Your task to perform on an android device: Open Yahoo.com Image 0: 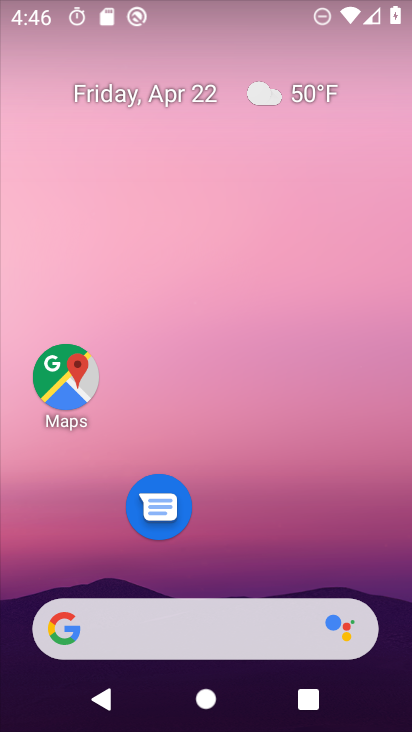
Step 0: drag from (234, 481) to (286, 91)
Your task to perform on an android device: Open Yahoo.com Image 1: 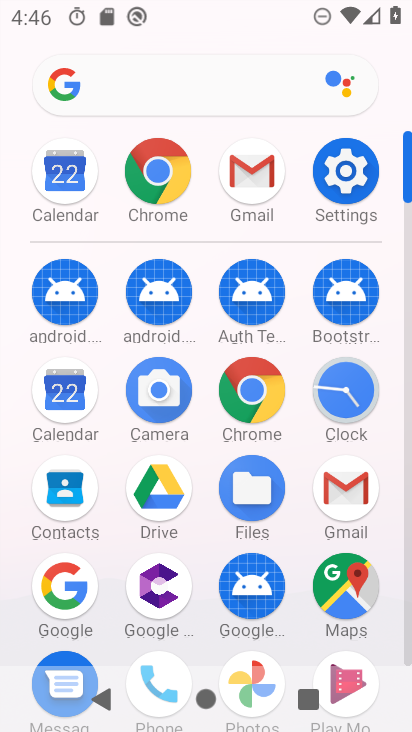
Step 1: click (172, 167)
Your task to perform on an android device: Open Yahoo.com Image 2: 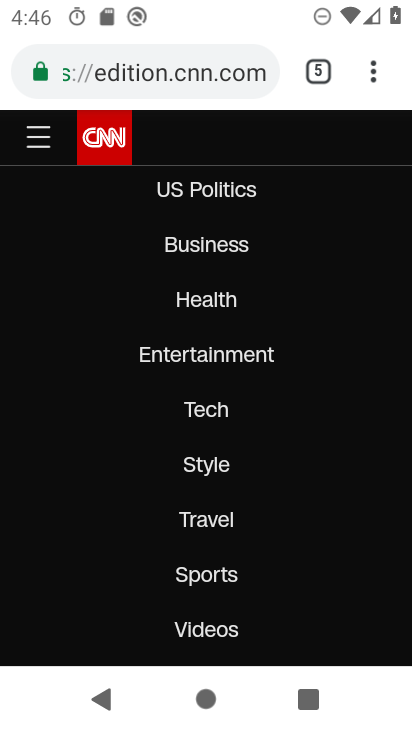
Step 2: drag from (374, 65) to (156, 491)
Your task to perform on an android device: Open Yahoo.com Image 3: 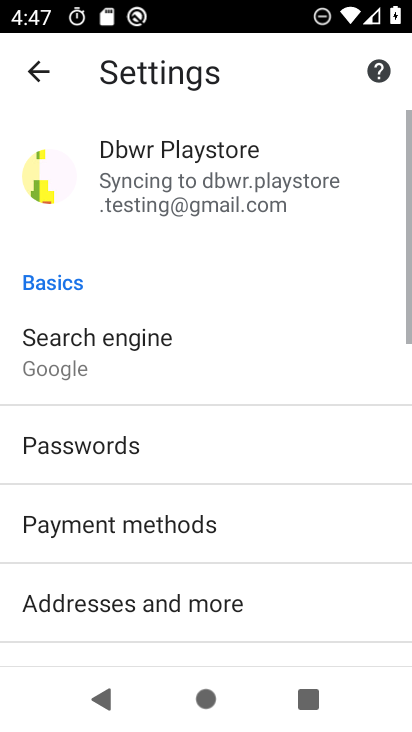
Step 3: drag from (149, 566) to (248, 175)
Your task to perform on an android device: Open Yahoo.com Image 4: 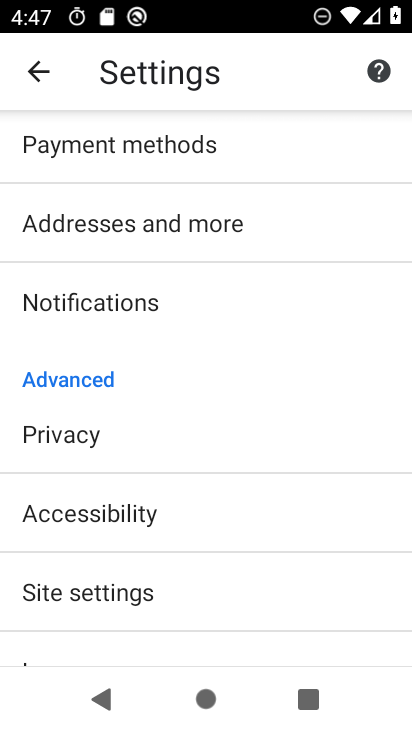
Step 4: click (30, 66)
Your task to perform on an android device: Open Yahoo.com Image 5: 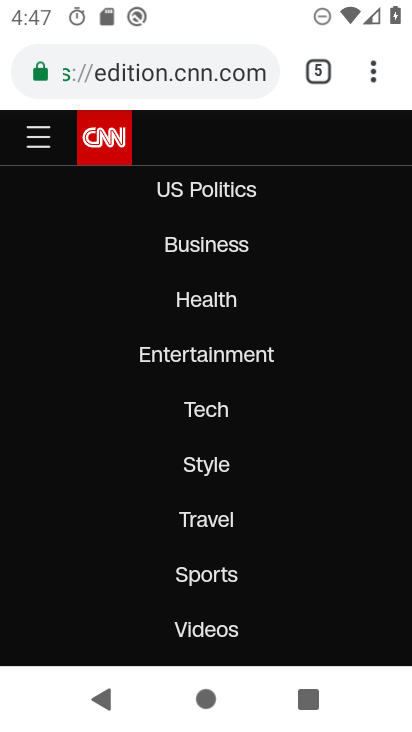
Step 5: click (317, 70)
Your task to perform on an android device: Open Yahoo.com Image 6: 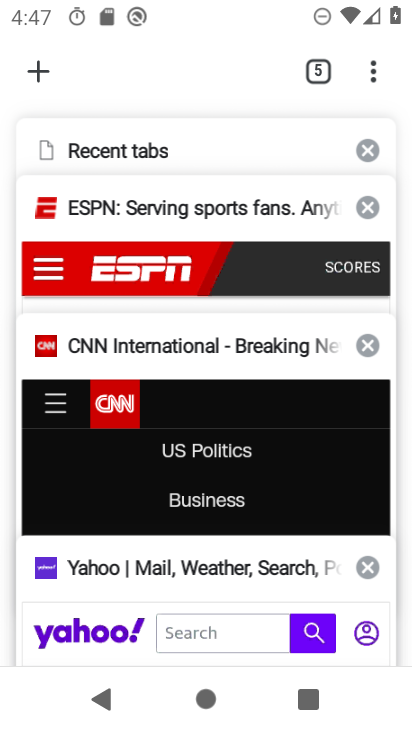
Step 6: click (95, 572)
Your task to perform on an android device: Open Yahoo.com Image 7: 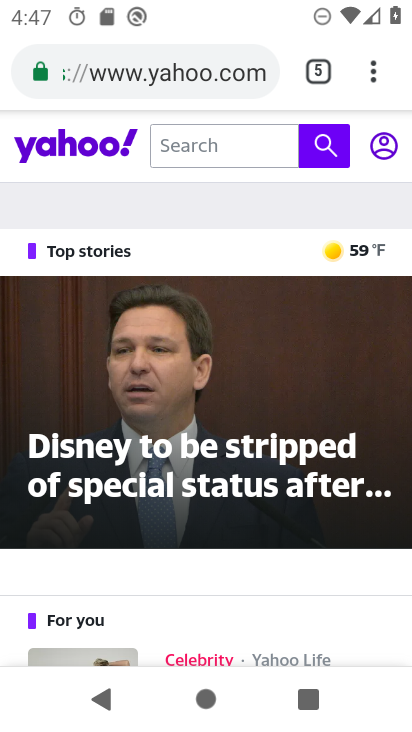
Step 7: task complete